Your task to perform on an android device: turn pop-ups on in chrome Image 0: 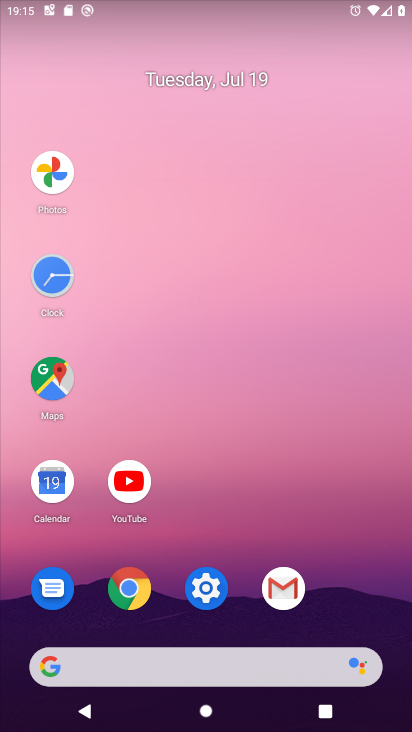
Step 0: click (128, 586)
Your task to perform on an android device: turn pop-ups on in chrome Image 1: 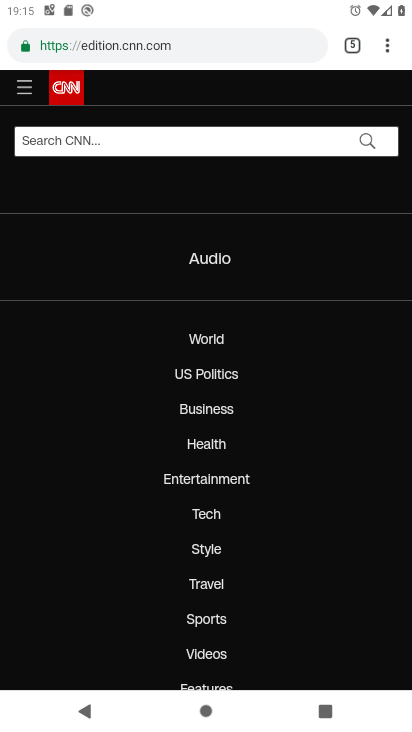
Step 1: click (389, 42)
Your task to perform on an android device: turn pop-ups on in chrome Image 2: 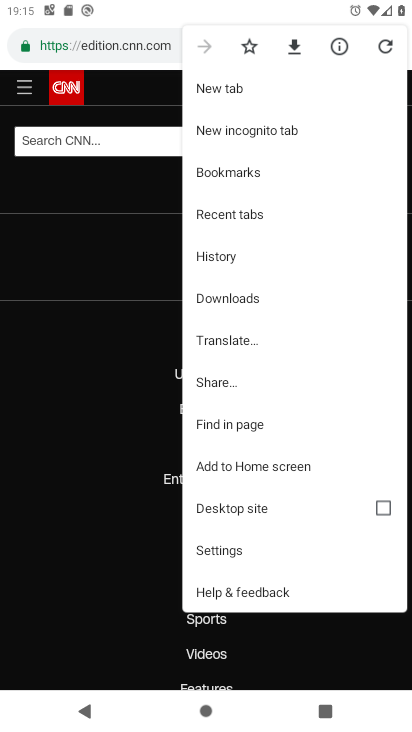
Step 2: click (230, 543)
Your task to perform on an android device: turn pop-ups on in chrome Image 3: 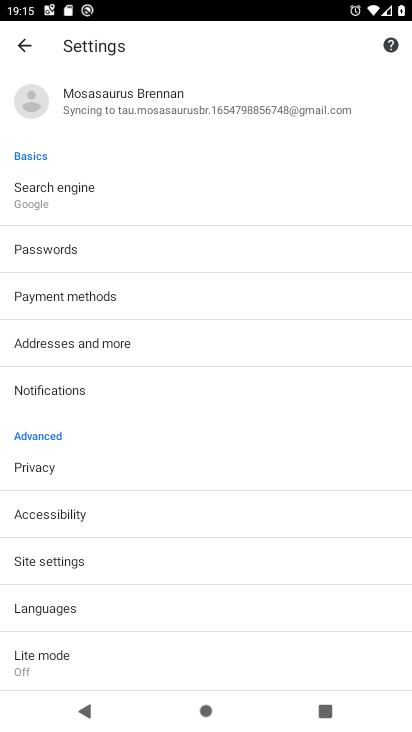
Step 3: click (61, 559)
Your task to perform on an android device: turn pop-ups on in chrome Image 4: 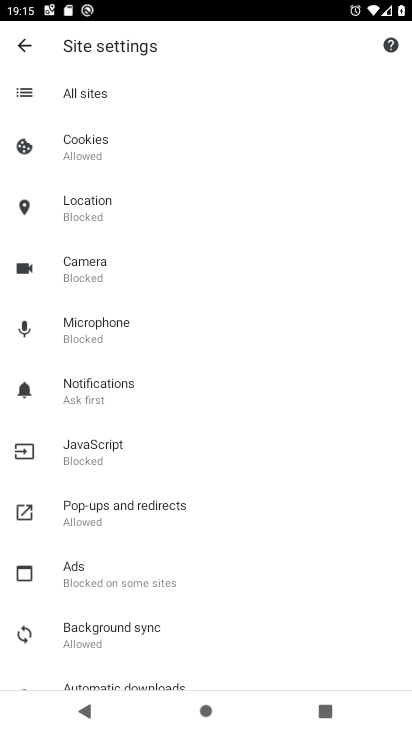
Step 4: click (116, 507)
Your task to perform on an android device: turn pop-ups on in chrome Image 5: 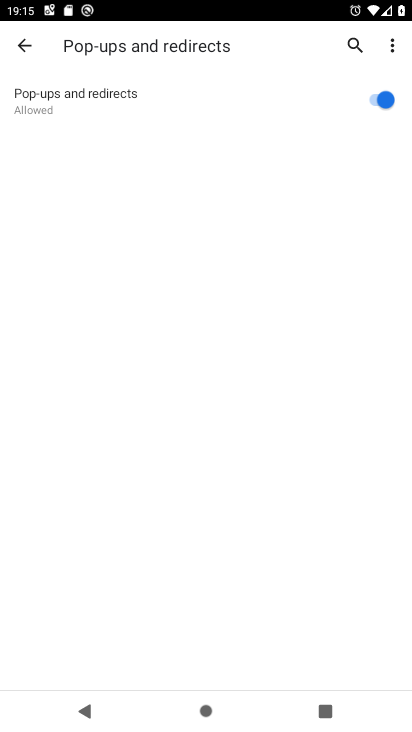
Step 5: task complete